Your task to perform on an android device: Open Amazon Image 0: 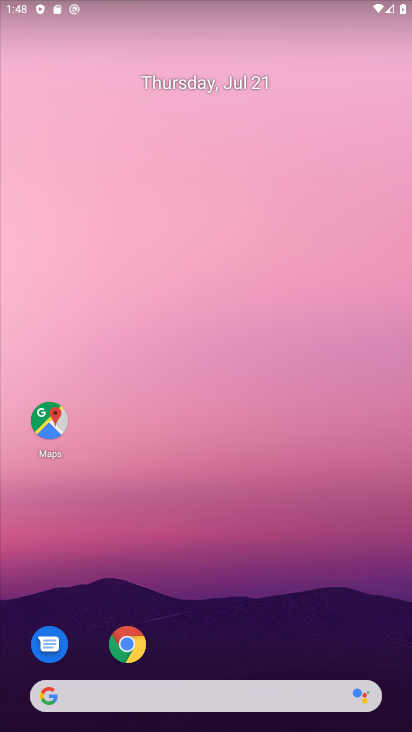
Step 0: click (123, 643)
Your task to perform on an android device: Open Amazon Image 1: 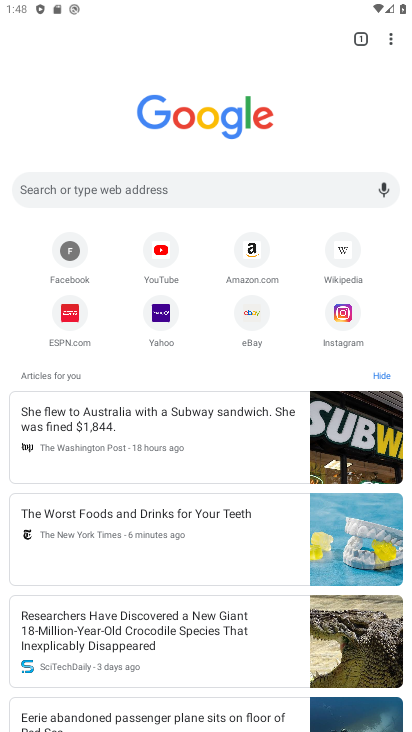
Step 1: click (256, 252)
Your task to perform on an android device: Open Amazon Image 2: 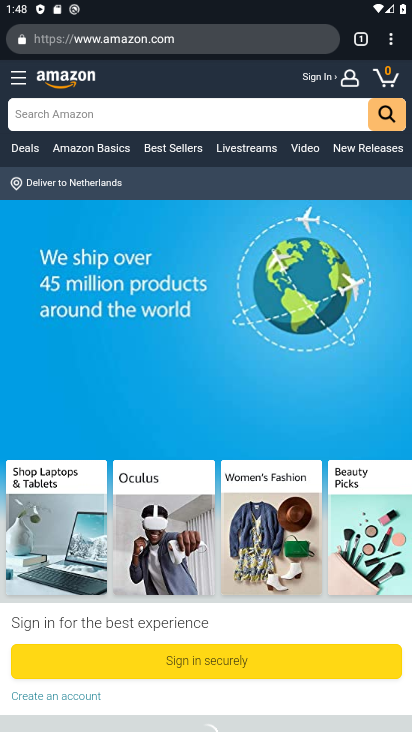
Step 2: task complete